Your task to perform on an android device: Open the web browser Image 0: 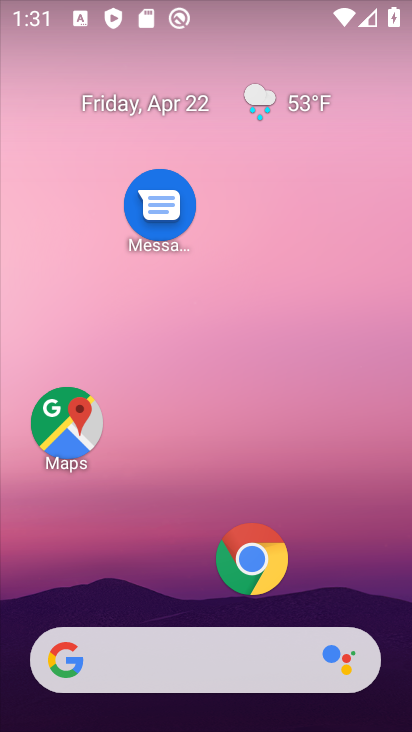
Step 0: click (245, 562)
Your task to perform on an android device: Open the web browser Image 1: 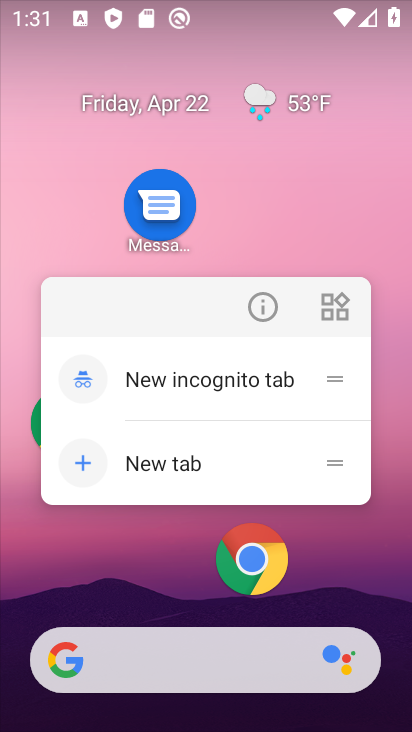
Step 1: click (245, 562)
Your task to perform on an android device: Open the web browser Image 2: 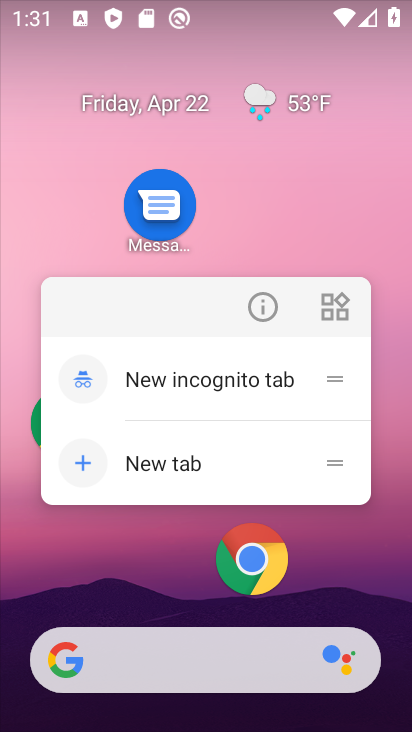
Step 2: click (260, 558)
Your task to perform on an android device: Open the web browser Image 3: 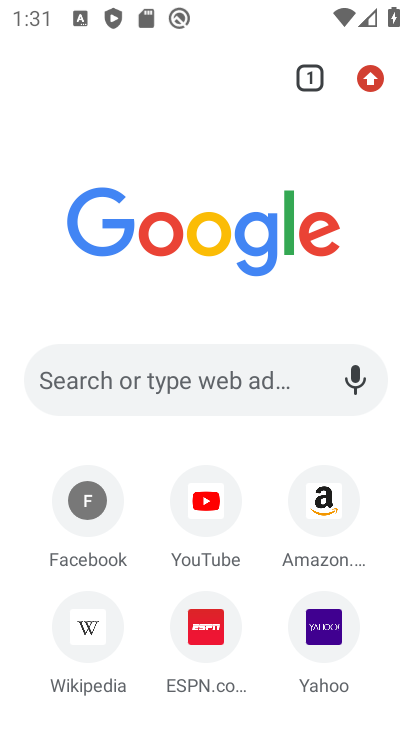
Step 3: click (102, 377)
Your task to perform on an android device: Open the web browser Image 4: 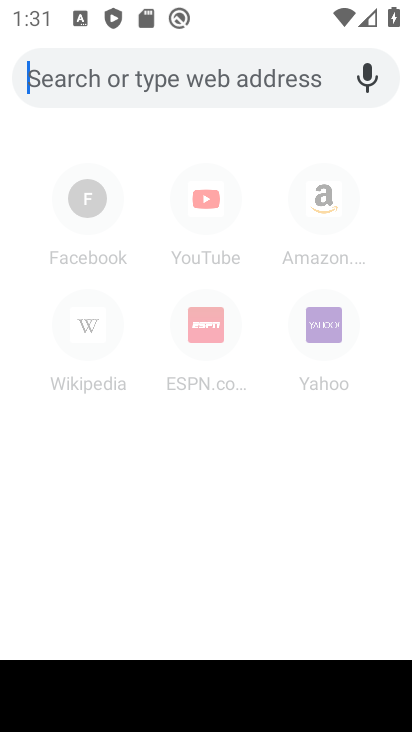
Step 4: task complete